Your task to perform on an android device: star an email in the gmail app Image 0: 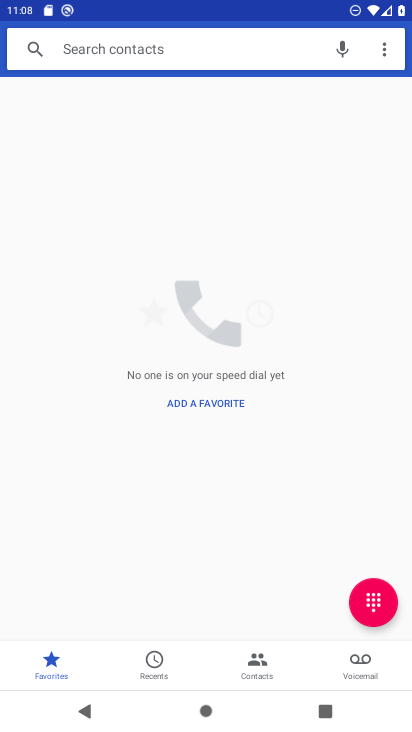
Step 0: press home button
Your task to perform on an android device: star an email in the gmail app Image 1: 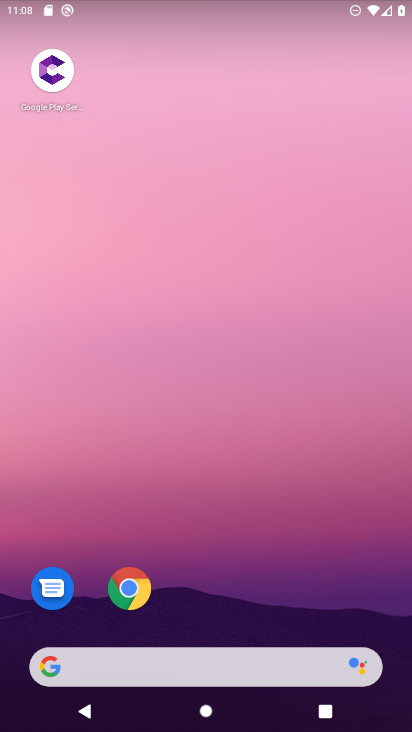
Step 1: drag from (226, 620) to (228, 50)
Your task to perform on an android device: star an email in the gmail app Image 2: 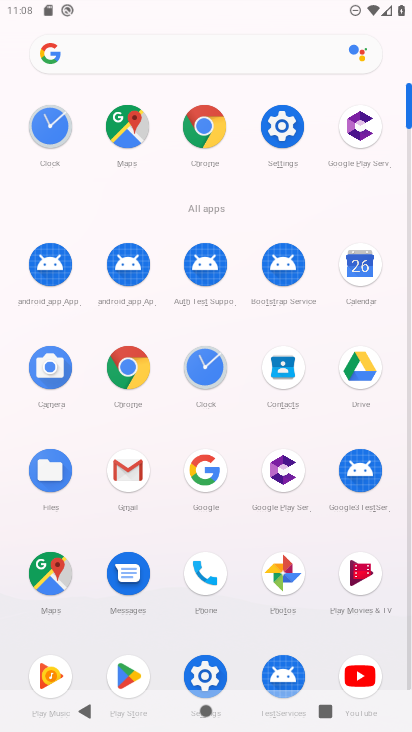
Step 2: click (129, 478)
Your task to perform on an android device: star an email in the gmail app Image 3: 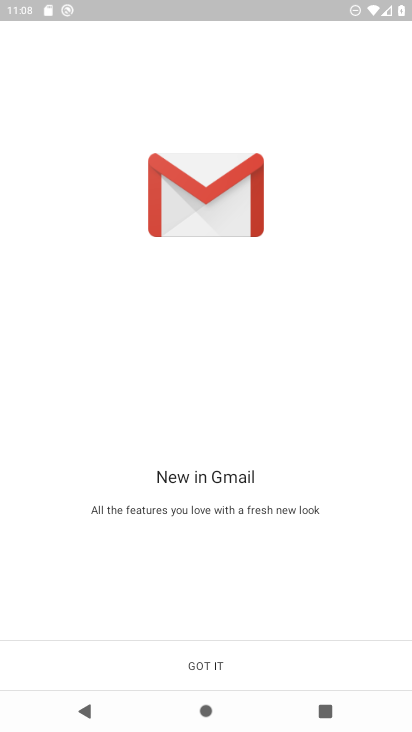
Step 3: click (184, 681)
Your task to perform on an android device: star an email in the gmail app Image 4: 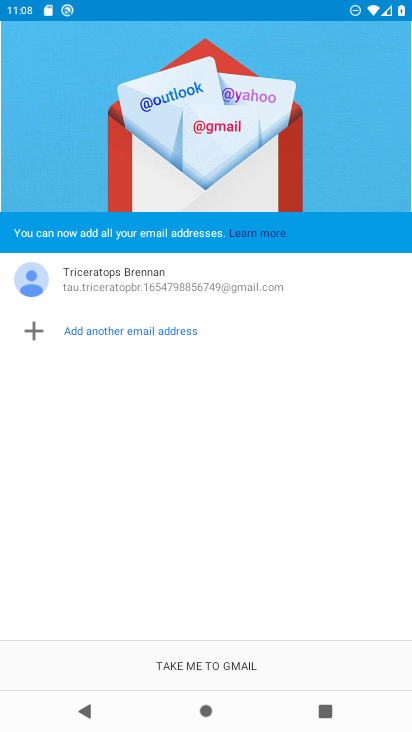
Step 4: click (186, 677)
Your task to perform on an android device: star an email in the gmail app Image 5: 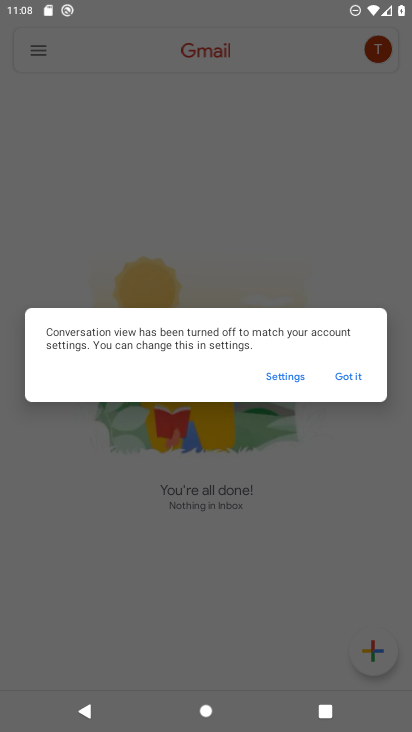
Step 5: click (354, 378)
Your task to perform on an android device: star an email in the gmail app Image 6: 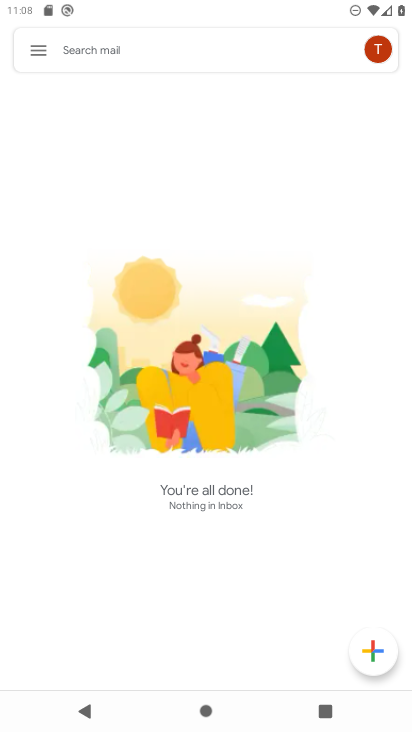
Step 6: click (32, 57)
Your task to perform on an android device: star an email in the gmail app Image 7: 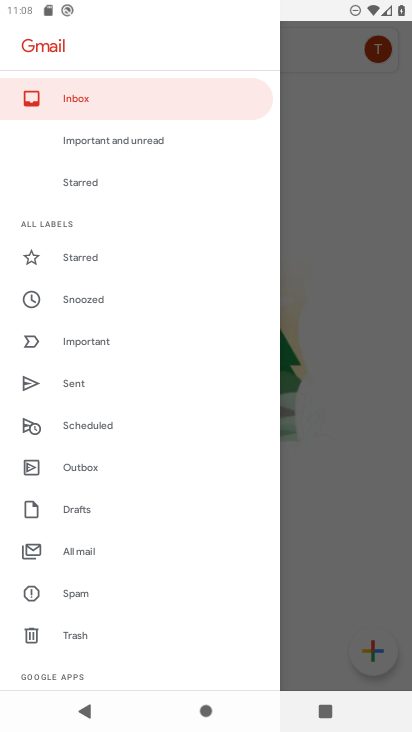
Step 7: click (101, 550)
Your task to perform on an android device: star an email in the gmail app Image 8: 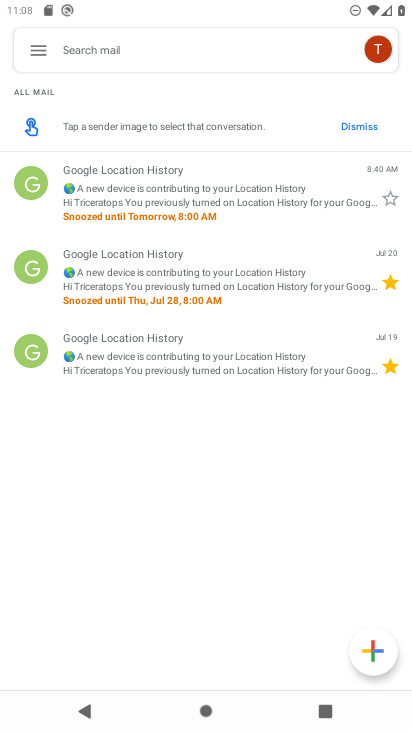
Step 8: click (389, 198)
Your task to perform on an android device: star an email in the gmail app Image 9: 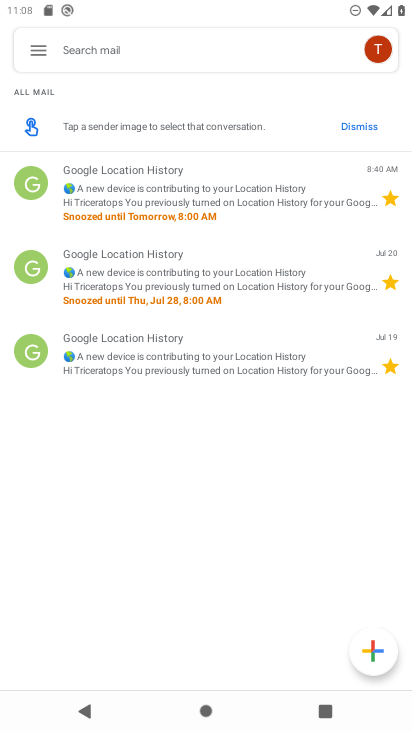
Step 9: task complete